Your task to perform on an android device: Do I have any events tomorrow? Image 0: 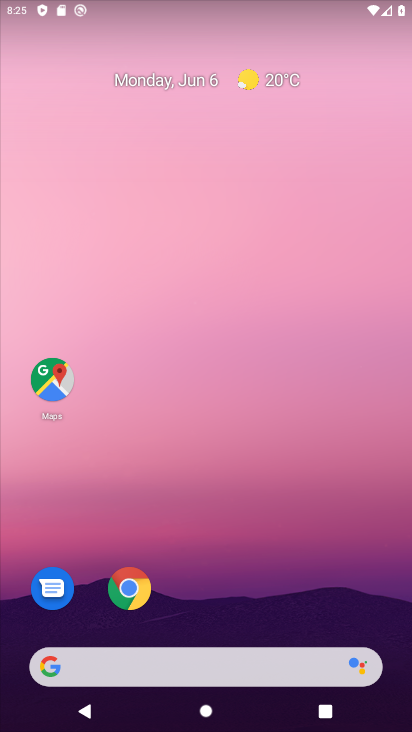
Step 0: drag from (292, 578) to (396, 631)
Your task to perform on an android device: Do I have any events tomorrow? Image 1: 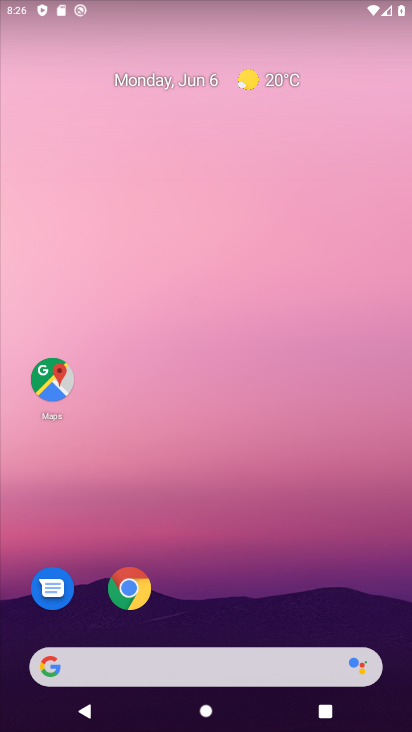
Step 1: click (163, 83)
Your task to perform on an android device: Do I have any events tomorrow? Image 2: 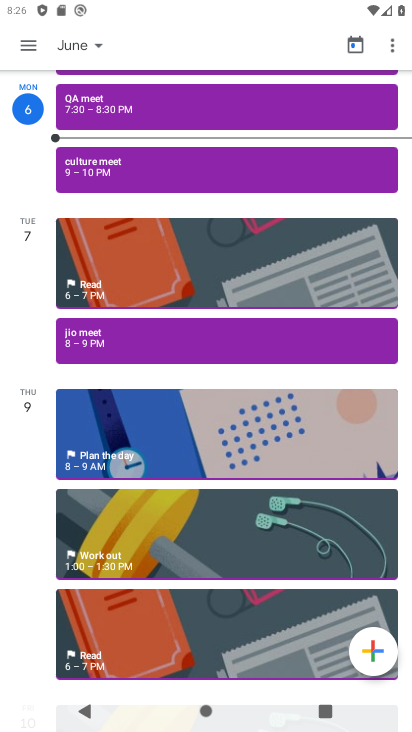
Step 2: click (75, 43)
Your task to perform on an android device: Do I have any events tomorrow? Image 3: 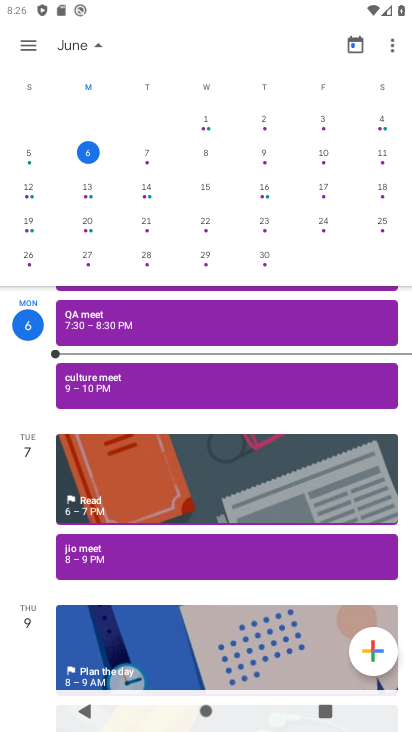
Step 3: click (156, 159)
Your task to perform on an android device: Do I have any events tomorrow? Image 4: 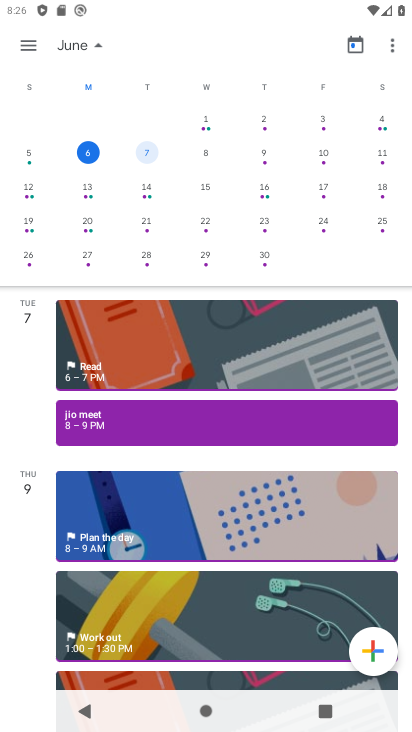
Step 4: task complete